Your task to perform on an android device: turn notification dots on Image 0: 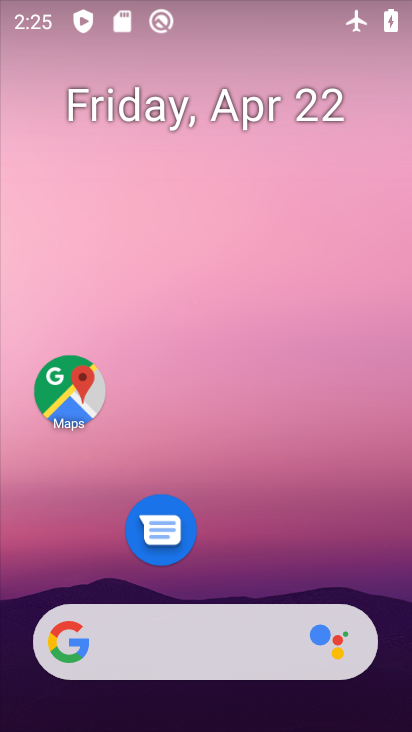
Step 0: drag from (278, 501) to (288, 16)
Your task to perform on an android device: turn notification dots on Image 1: 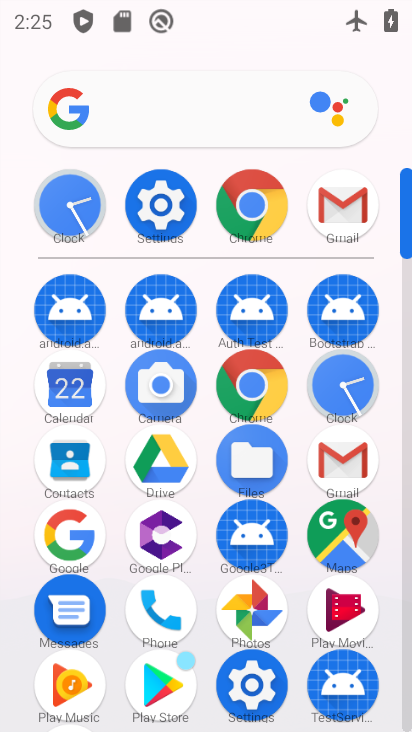
Step 1: click (153, 209)
Your task to perform on an android device: turn notification dots on Image 2: 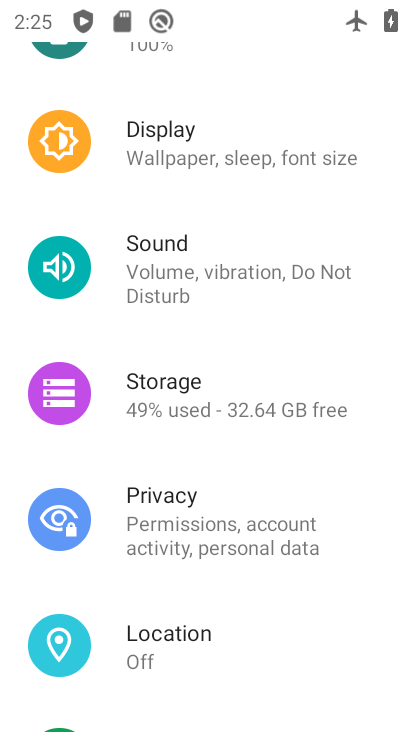
Step 2: drag from (224, 196) to (238, 685)
Your task to perform on an android device: turn notification dots on Image 3: 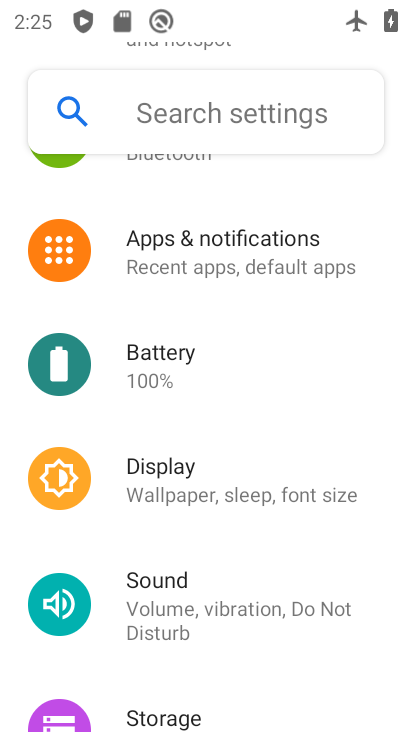
Step 3: click (190, 237)
Your task to perform on an android device: turn notification dots on Image 4: 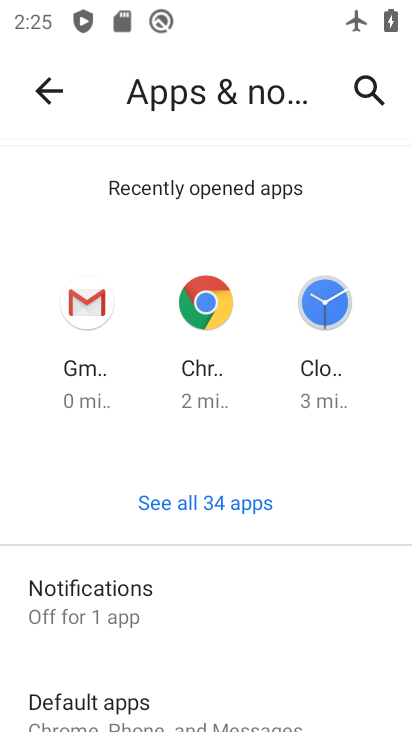
Step 4: drag from (191, 616) to (157, 260)
Your task to perform on an android device: turn notification dots on Image 5: 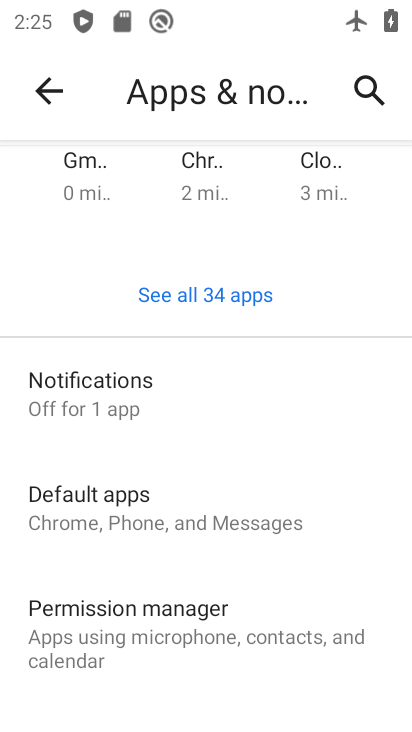
Step 5: click (83, 384)
Your task to perform on an android device: turn notification dots on Image 6: 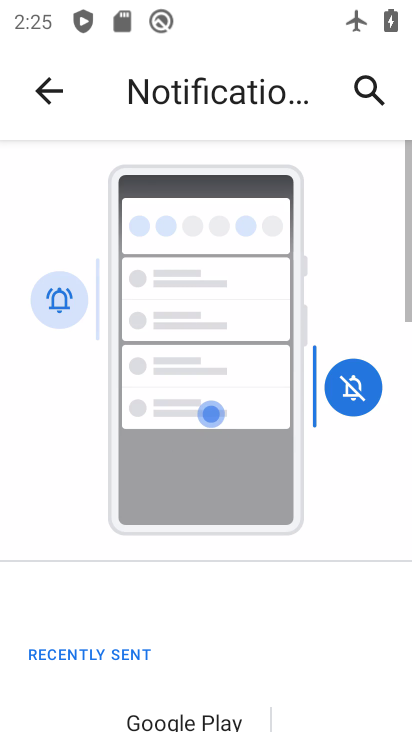
Step 6: drag from (148, 524) to (162, 77)
Your task to perform on an android device: turn notification dots on Image 7: 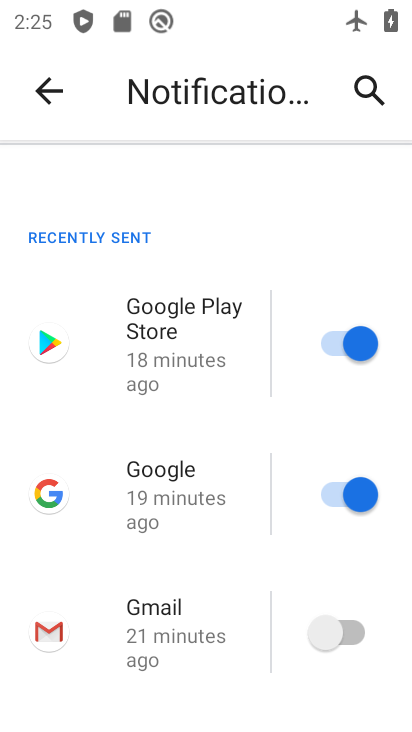
Step 7: drag from (175, 487) to (193, 191)
Your task to perform on an android device: turn notification dots on Image 8: 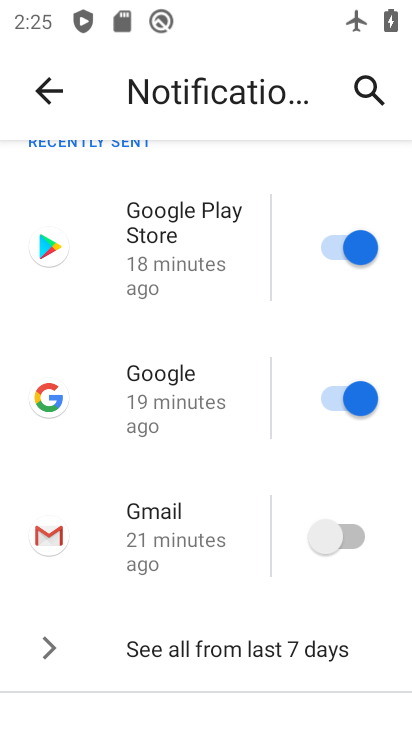
Step 8: drag from (180, 524) to (191, 312)
Your task to perform on an android device: turn notification dots on Image 9: 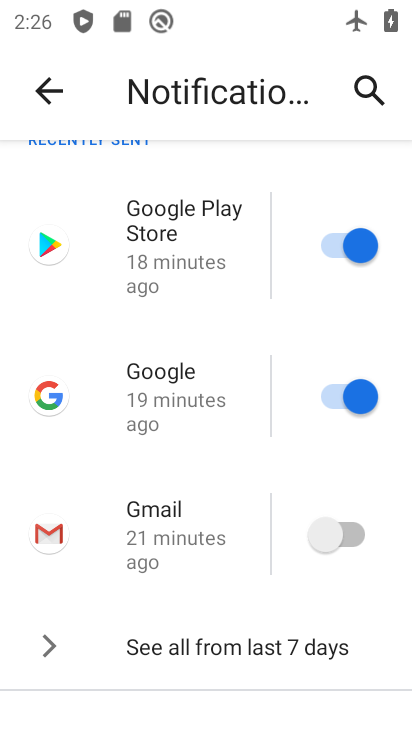
Step 9: drag from (166, 568) to (167, 232)
Your task to perform on an android device: turn notification dots on Image 10: 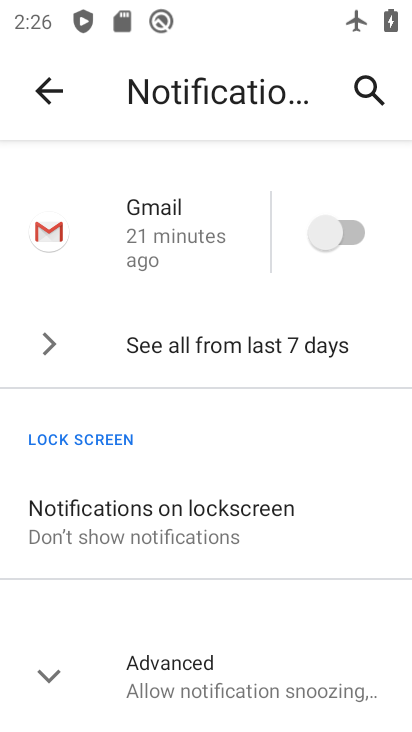
Step 10: drag from (156, 584) to (162, 314)
Your task to perform on an android device: turn notification dots on Image 11: 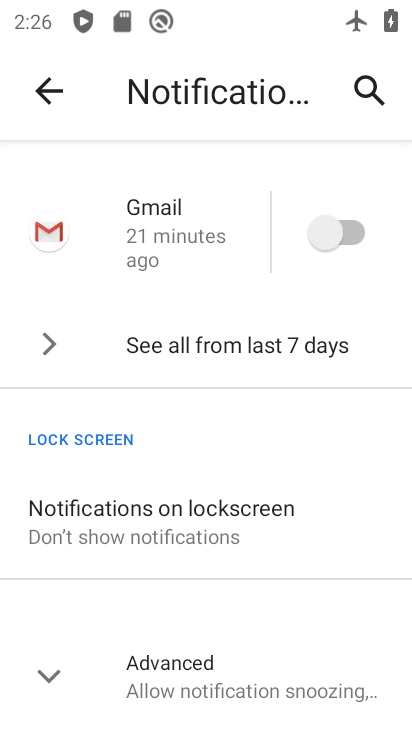
Step 11: click (52, 676)
Your task to perform on an android device: turn notification dots on Image 12: 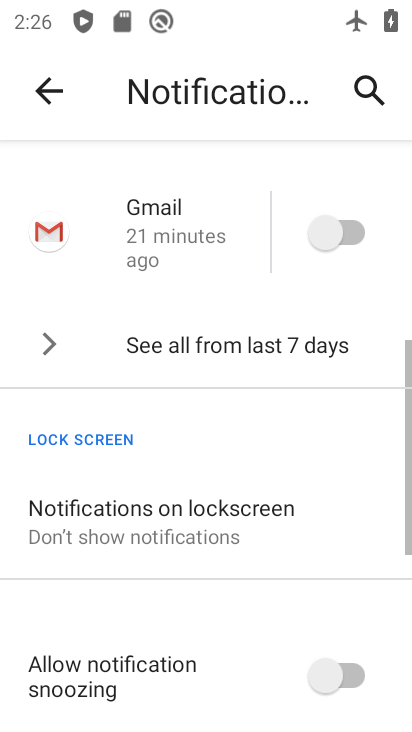
Step 12: task complete